Your task to perform on an android device: What's the weather? Image 0: 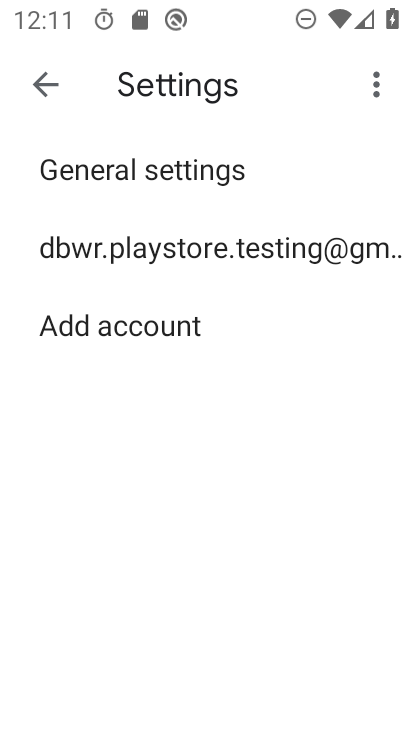
Step 0: press home button
Your task to perform on an android device: What's the weather? Image 1: 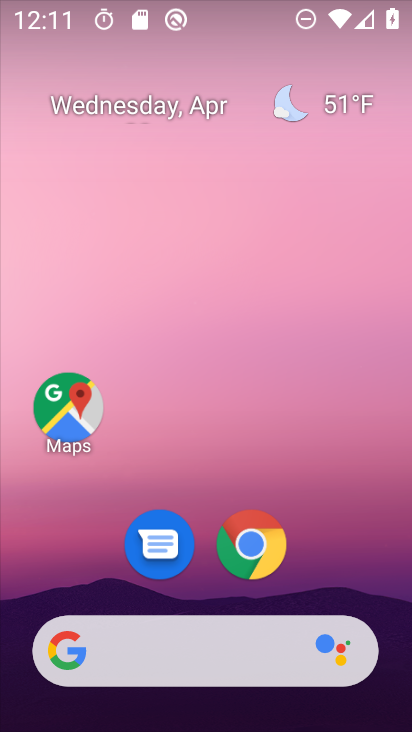
Step 1: click (199, 645)
Your task to perform on an android device: What's the weather? Image 2: 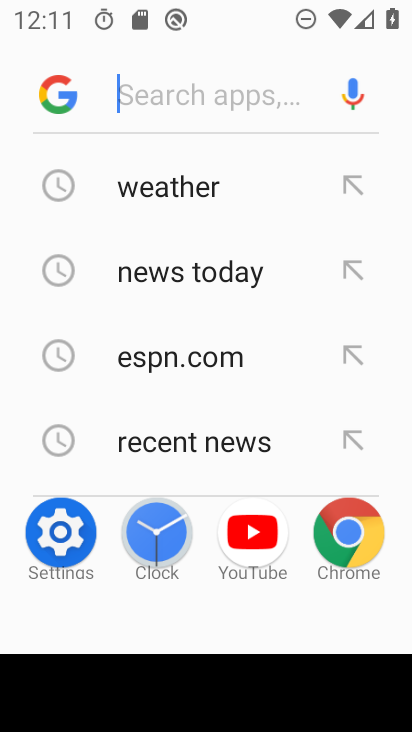
Step 2: click (159, 184)
Your task to perform on an android device: What's the weather? Image 3: 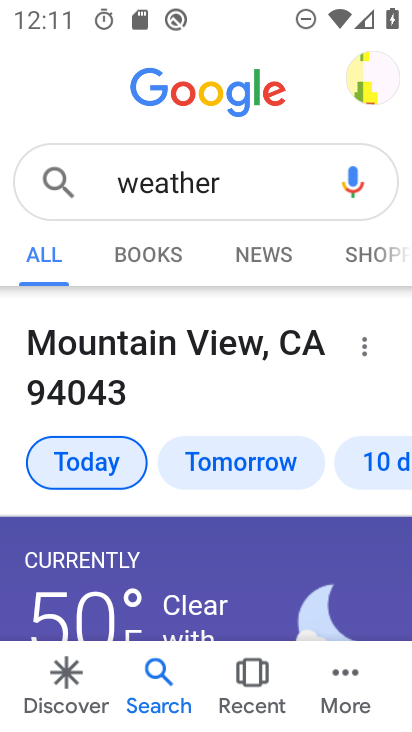
Step 3: task complete